Your task to perform on an android device: Toggle the flashlight Image 0: 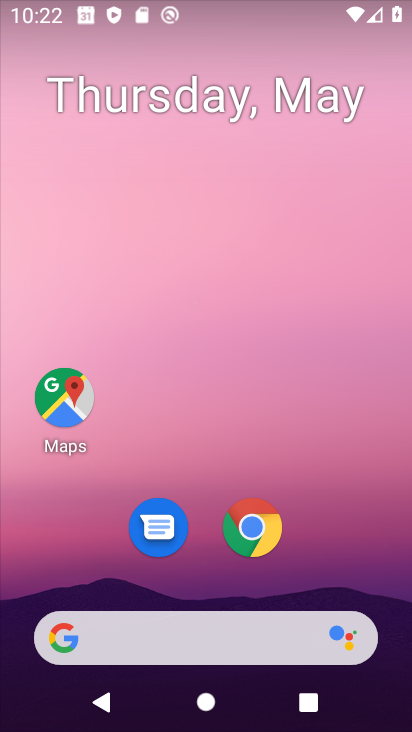
Step 0: drag from (242, 725) to (246, 135)
Your task to perform on an android device: Toggle the flashlight Image 1: 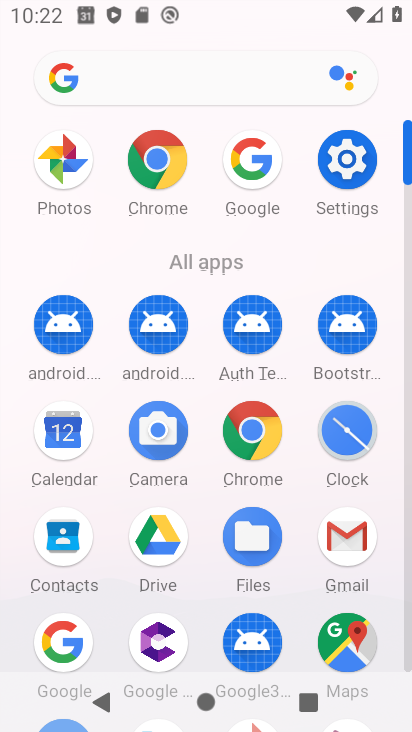
Step 1: click (340, 162)
Your task to perform on an android device: Toggle the flashlight Image 2: 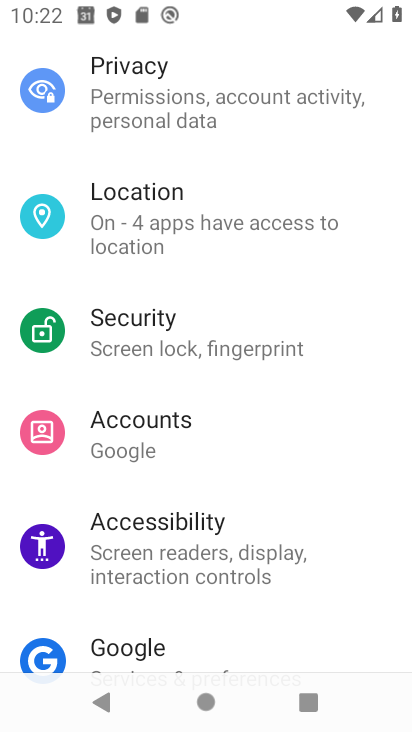
Step 2: task complete